Your task to perform on an android device: Do I have any events today? Image 0: 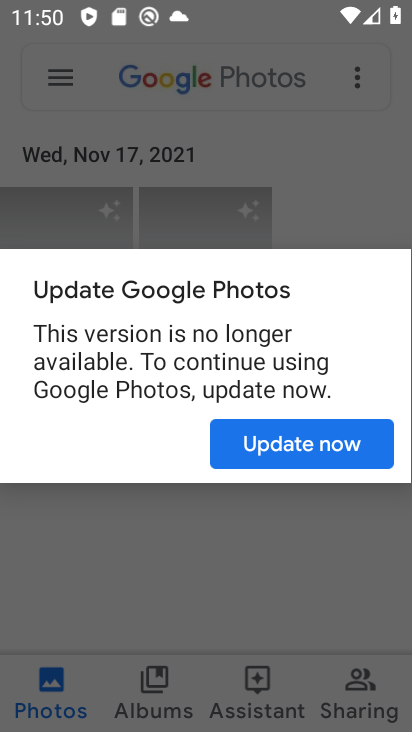
Step 0: press home button
Your task to perform on an android device: Do I have any events today? Image 1: 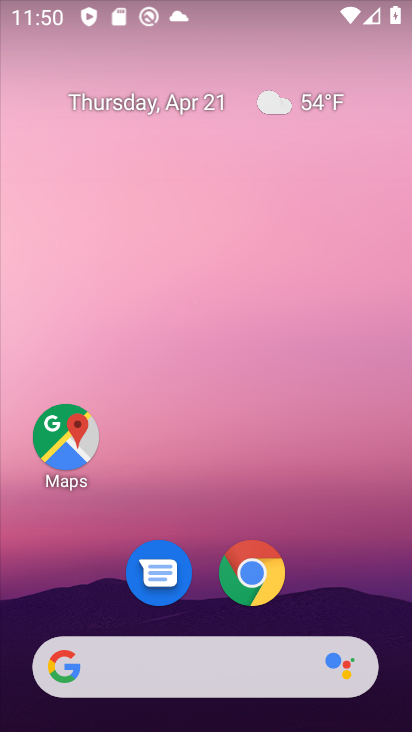
Step 1: drag from (205, 673) to (286, 105)
Your task to perform on an android device: Do I have any events today? Image 2: 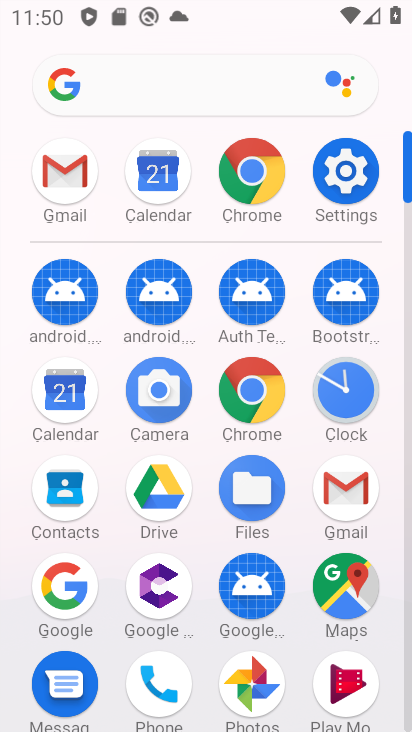
Step 2: click (63, 410)
Your task to perform on an android device: Do I have any events today? Image 3: 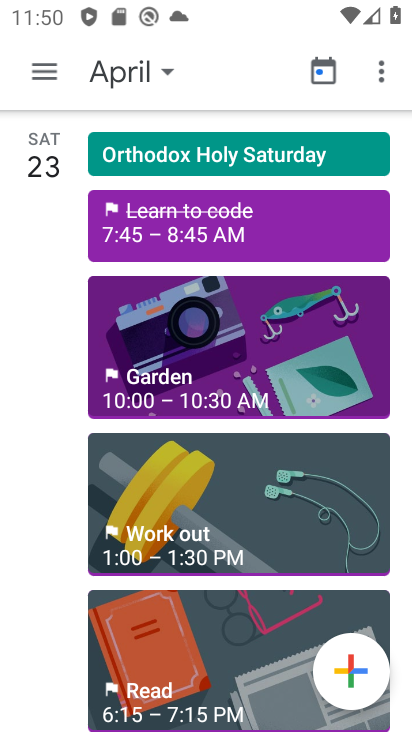
Step 3: click (75, 396)
Your task to perform on an android device: Do I have any events today? Image 4: 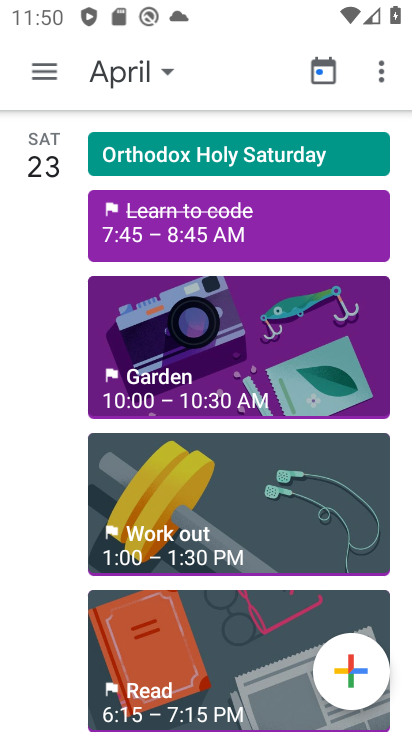
Step 4: click (129, 68)
Your task to perform on an android device: Do I have any events today? Image 5: 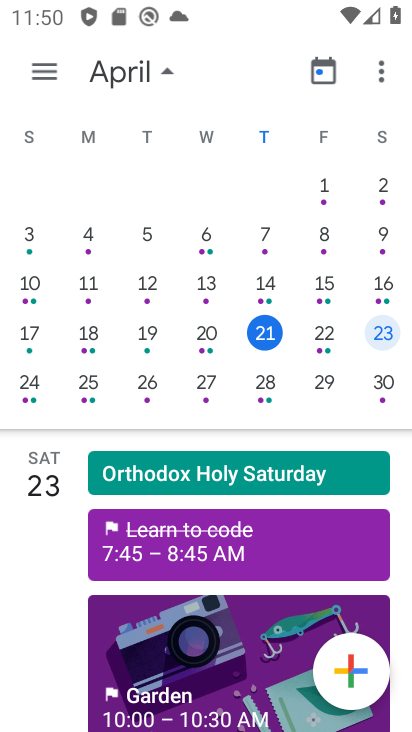
Step 5: click (270, 332)
Your task to perform on an android device: Do I have any events today? Image 6: 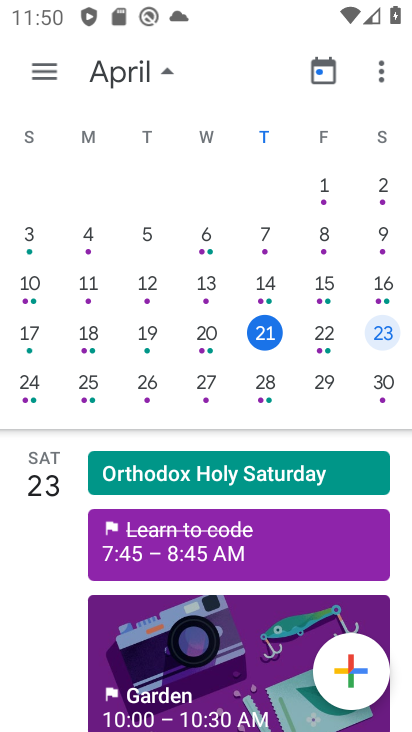
Step 6: click (268, 340)
Your task to perform on an android device: Do I have any events today? Image 7: 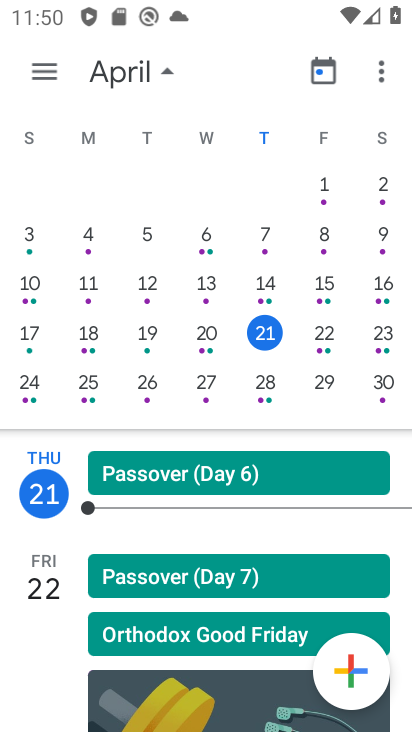
Step 7: click (41, 76)
Your task to perform on an android device: Do I have any events today? Image 8: 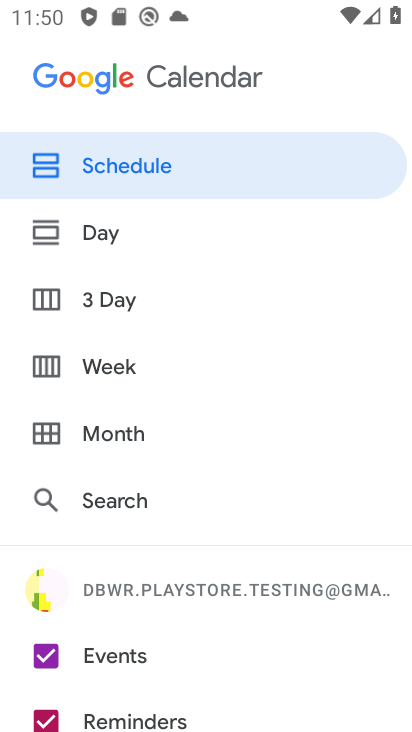
Step 8: click (163, 174)
Your task to perform on an android device: Do I have any events today? Image 9: 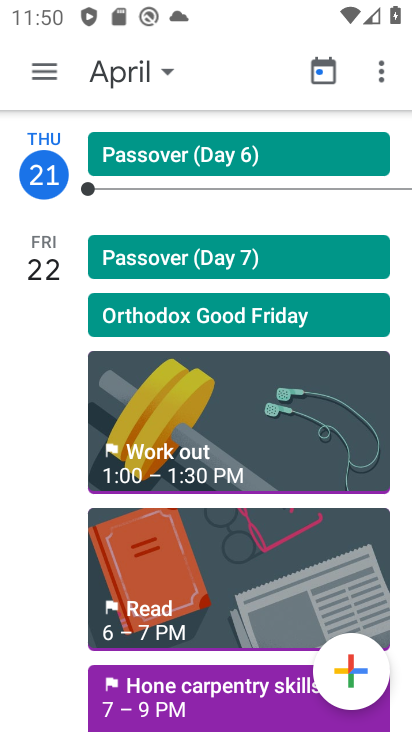
Step 9: task complete